Your task to perform on an android device: change the upload size in google photos Image 0: 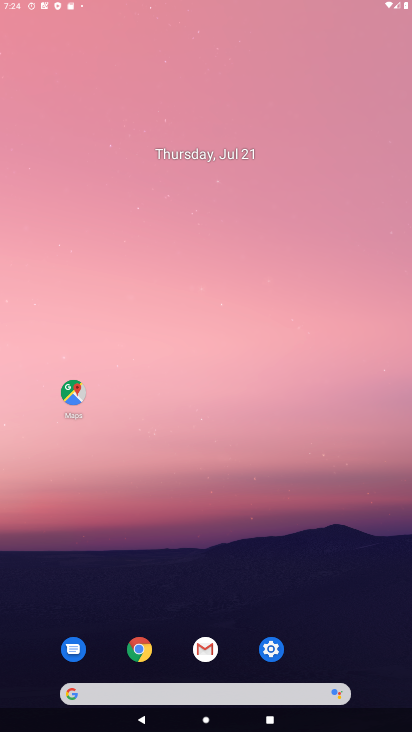
Step 0: press home button
Your task to perform on an android device: change the upload size in google photos Image 1: 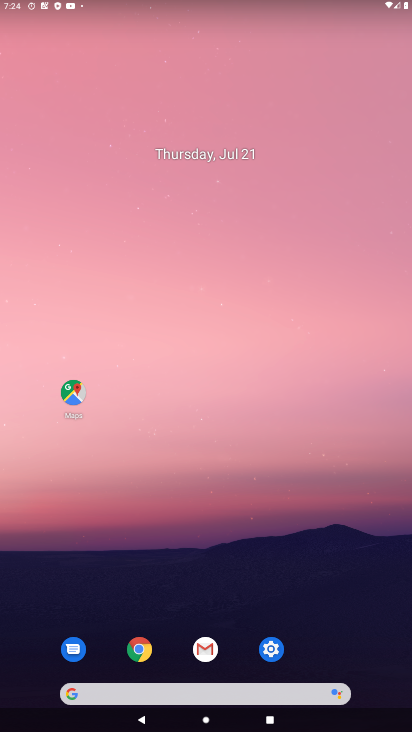
Step 1: drag from (301, 703) to (257, 113)
Your task to perform on an android device: change the upload size in google photos Image 2: 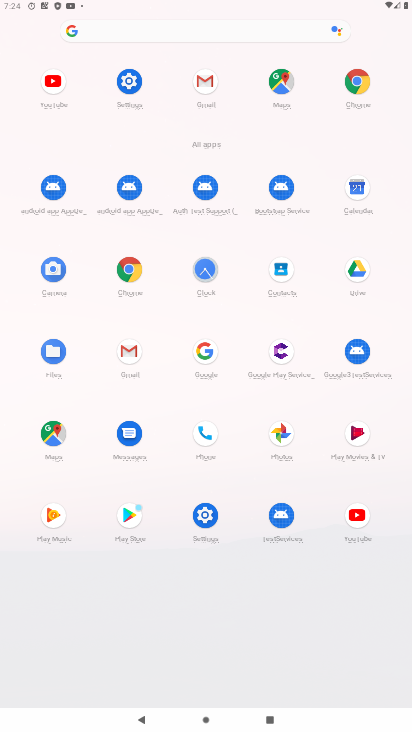
Step 2: click (272, 445)
Your task to perform on an android device: change the upload size in google photos Image 3: 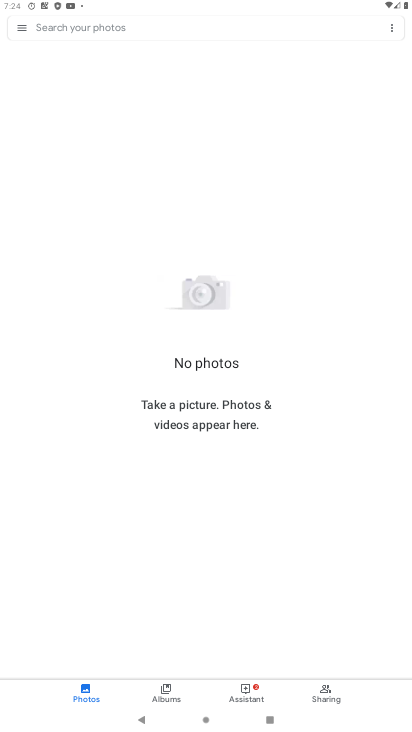
Step 3: click (19, 24)
Your task to perform on an android device: change the upload size in google photos Image 4: 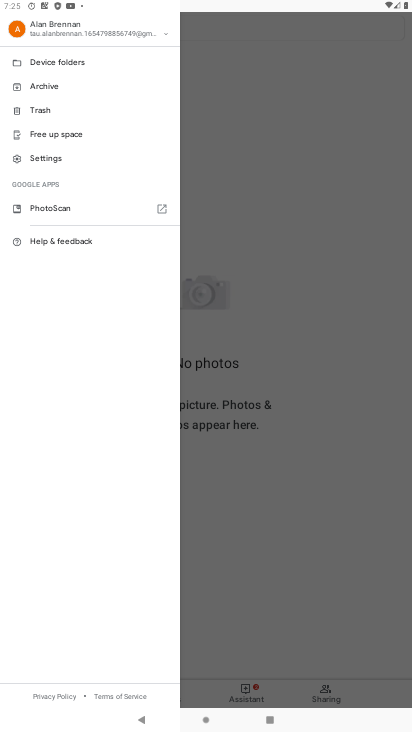
Step 4: click (56, 159)
Your task to perform on an android device: change the upload size in google photos Image 5: 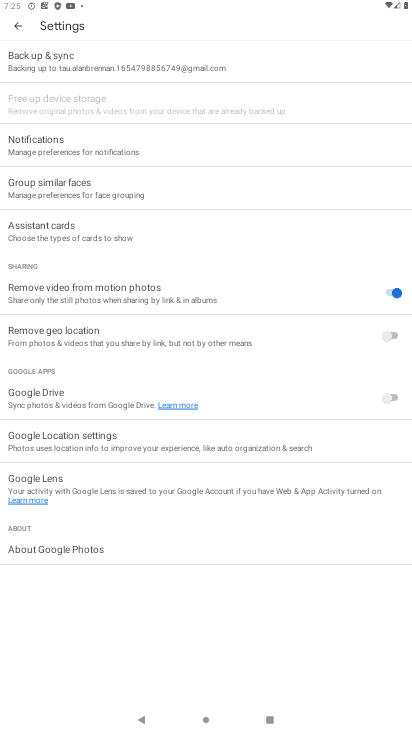
Step 5: click (98, 68)
Your task to perform on an android device: change the upload size in google photos Image 6: 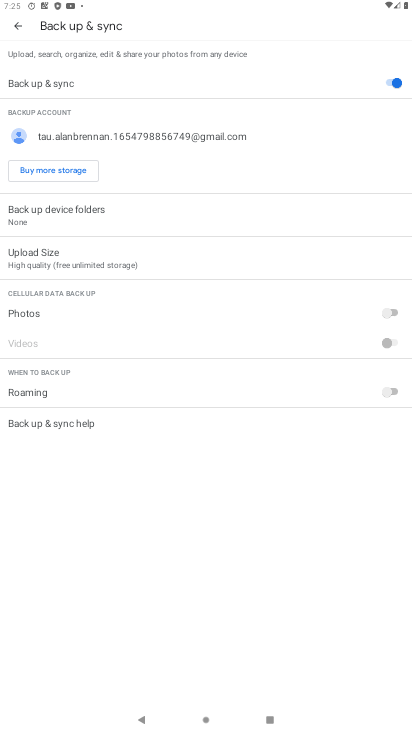
Step 6: click (79, 256)
Your task to perform on an android device: change the upload size in google photos Image 7: 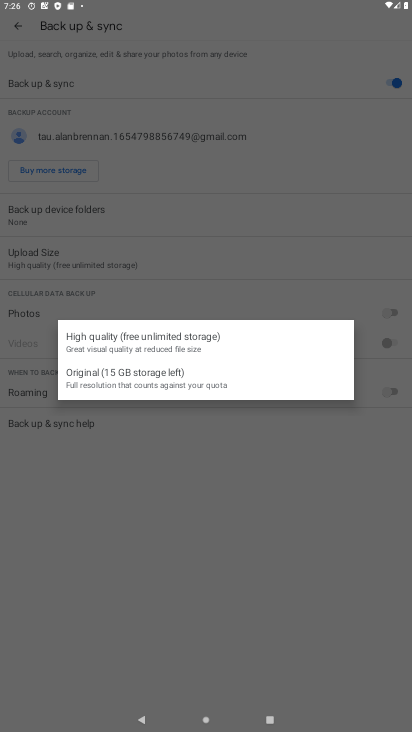
Step 7: task complete